Your task to perform on an android device: Open Amazon Image 0: 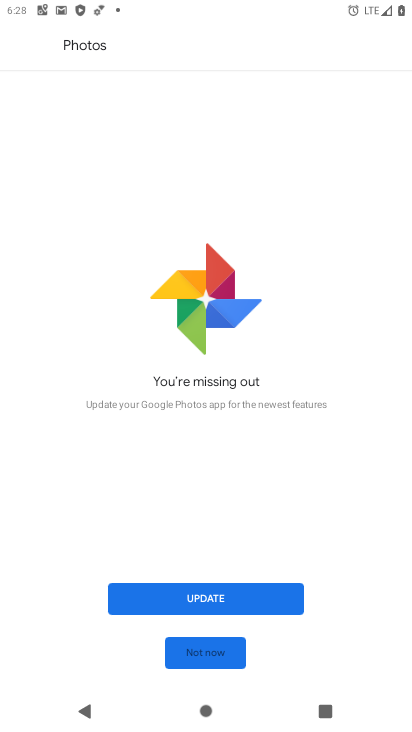
Step 0: press home button
Your task to perform on an android device: Open Amazon Image 1: 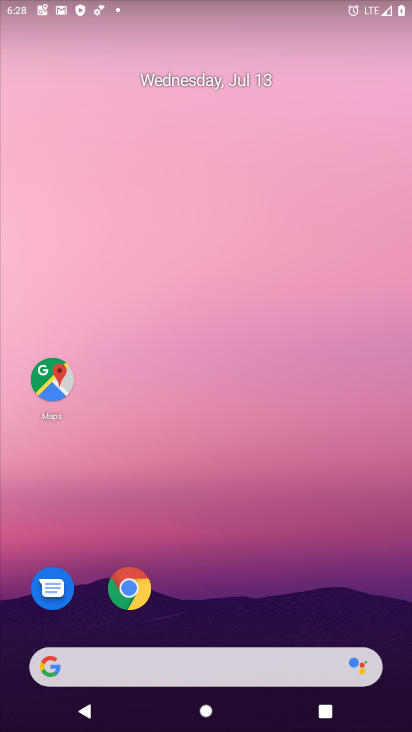
Step 1: click (129, 595)
Your task to perform on an android device: Open Amazon Image 2: 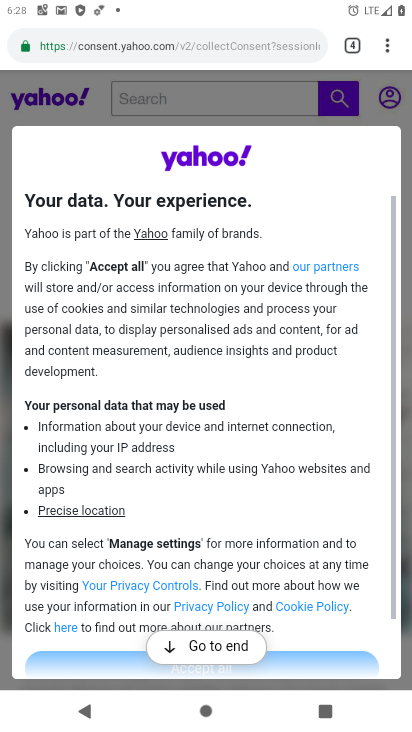
Step 2: click (169, 45)
Your task to perform on an android device: Open Amazon Image 3: 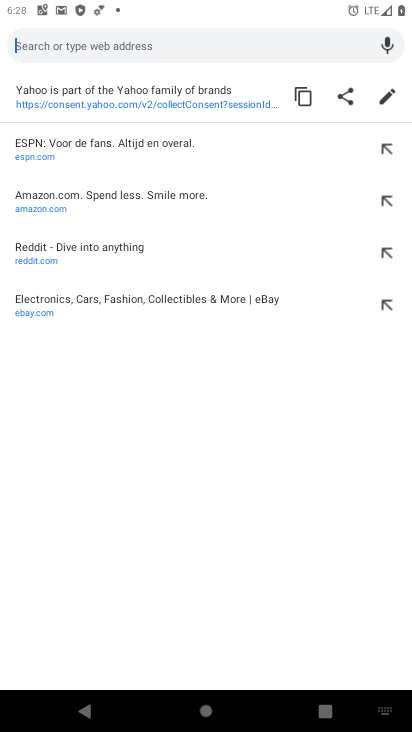
Step 3: click (43, 202)
Your task to perform on an android device: Open Amazon Image 4: 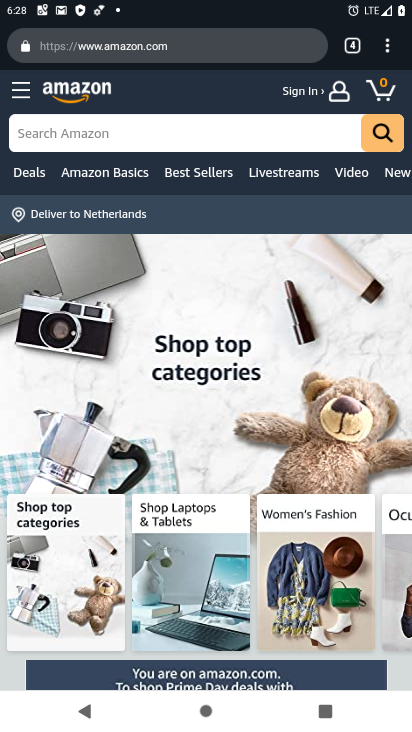
Step 4: task complete